Your task to perform on an android device: allow notifications from all sites in the chrome app Image 0: 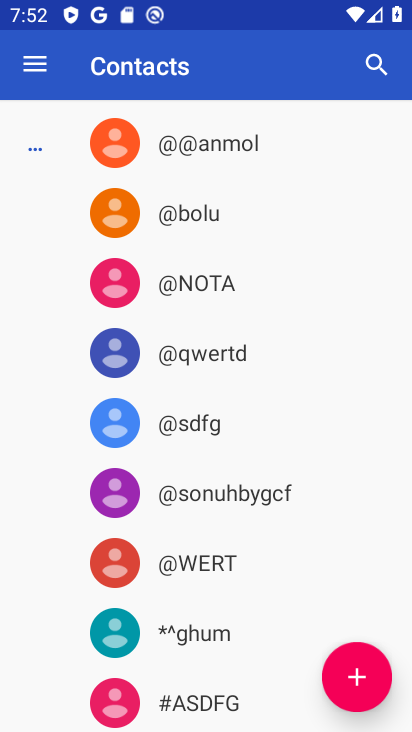
Step 0: press back button
Your task to perform on an android device: allow notifications from all sites in the chrome app Image 1: 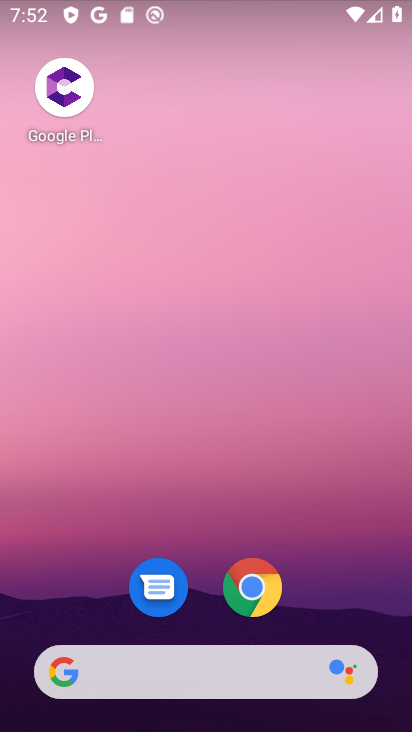
Step 1: click (249, 574)
Your task to perform on an android device: allow notifications from all sites in the chrome app Image 2: 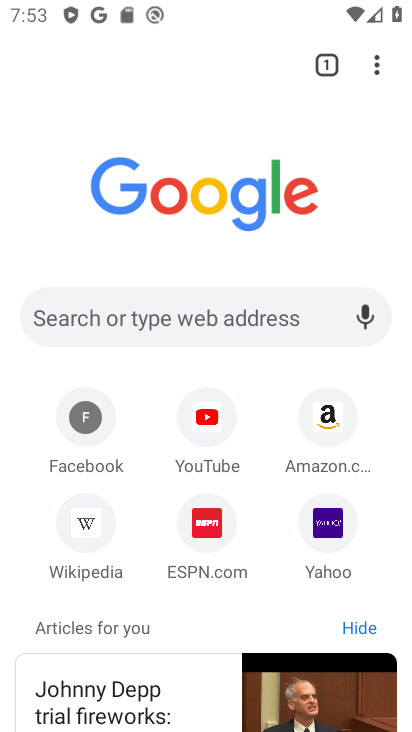
Step 2: drag from (371, 71) to (160, 543)
Your task to perform on an android device: allow notifications from all sites in the chrome app Image 3: 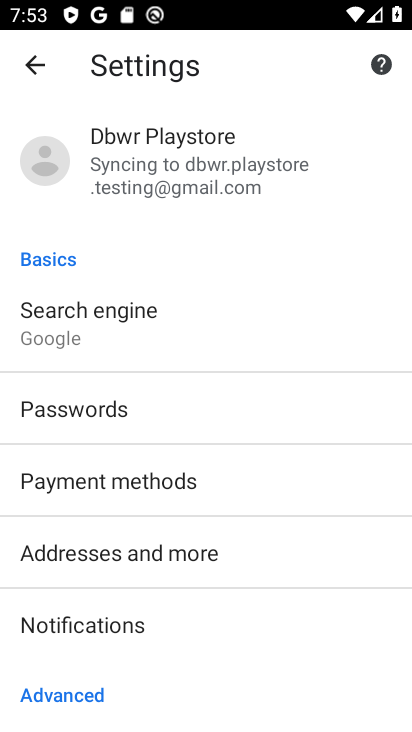
Step 3: click (110, 618)
Your task to perform on an android device: allow notifications from all sites in the chrome app Image 4: 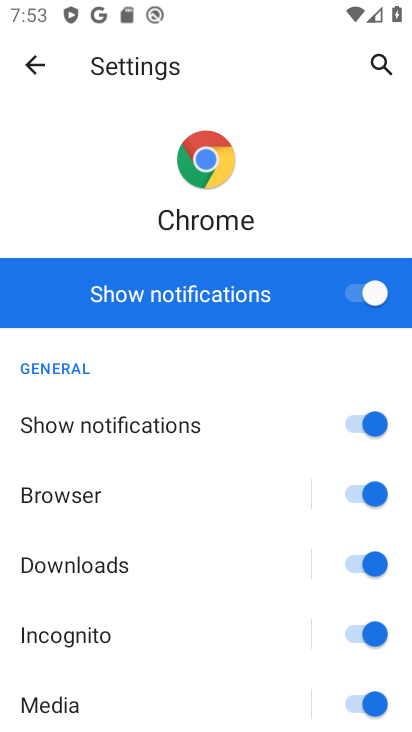
Step 4: task complete